Your task to perform on an android device: set the timer Image 0: 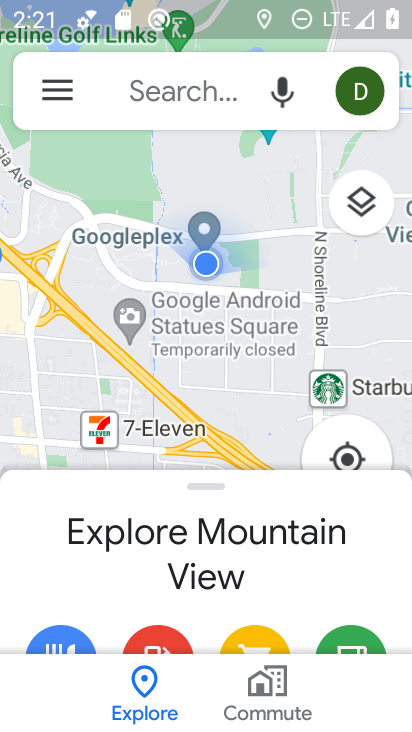
Step 0: press home button
Your task to perform on an android device: set the timer Image 1: 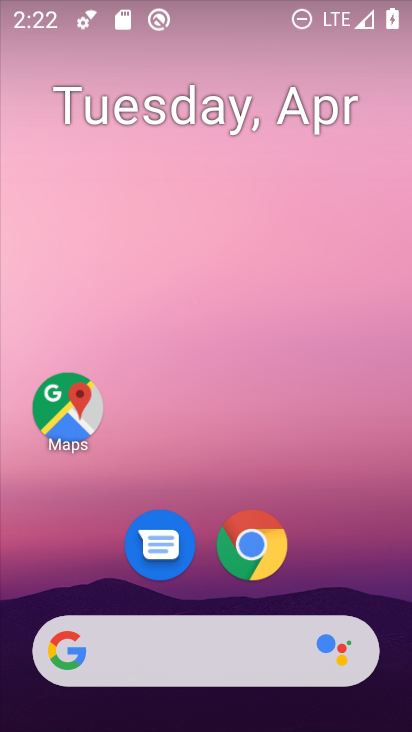
Step 1: drag from (384, 615) to (348, 214)
Your task to perform on an android device: set the timer Image 2: 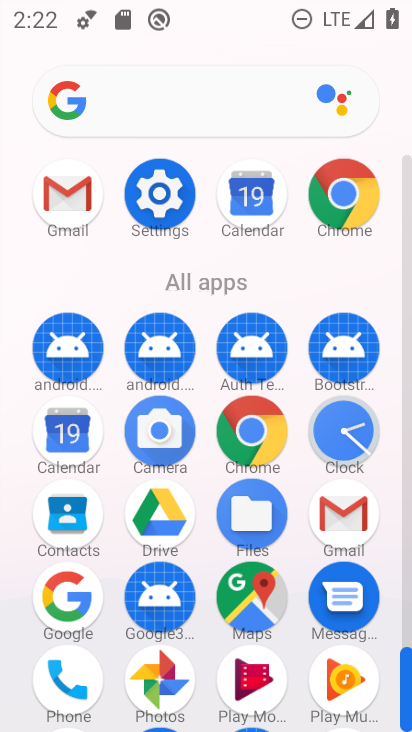
Step 2: click (349, 438)
Your task to perform on an android device: set the timer Image 3: 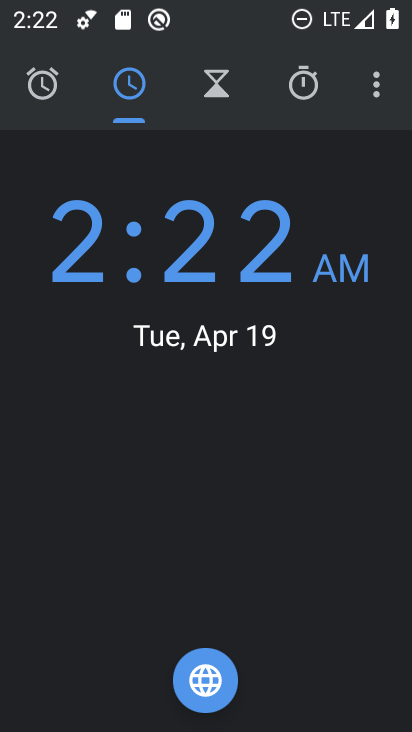
Step 3: click (233, 90)
Your task to perform on an android device: set the timer Image 4: 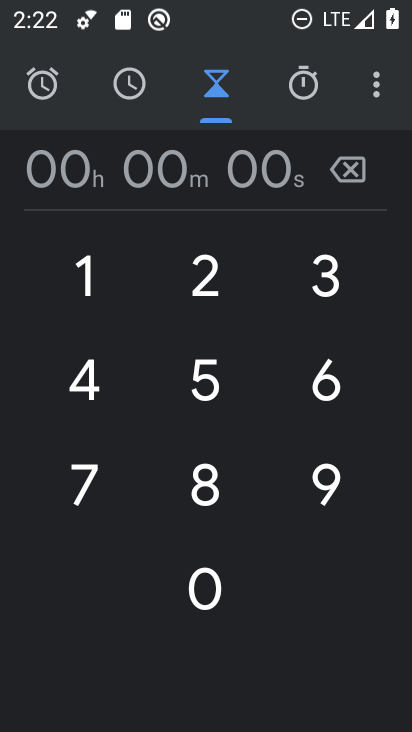
Step 4: type "10000"
Your task to perform on an android device: set the timer Image 5: 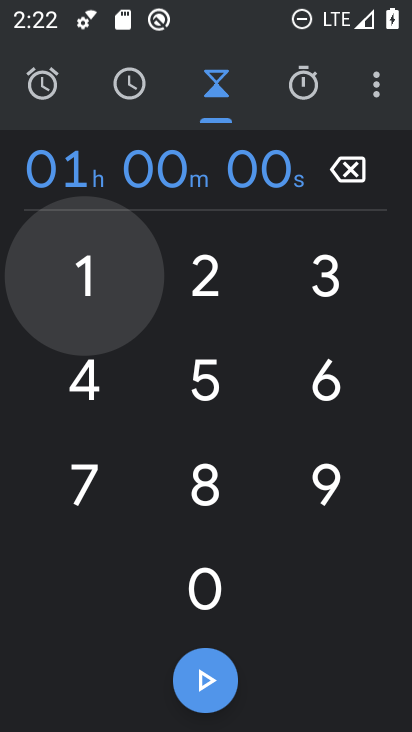
Step 5: click (224, 657)
Your task to perform on an android device: set the timer Image 6: 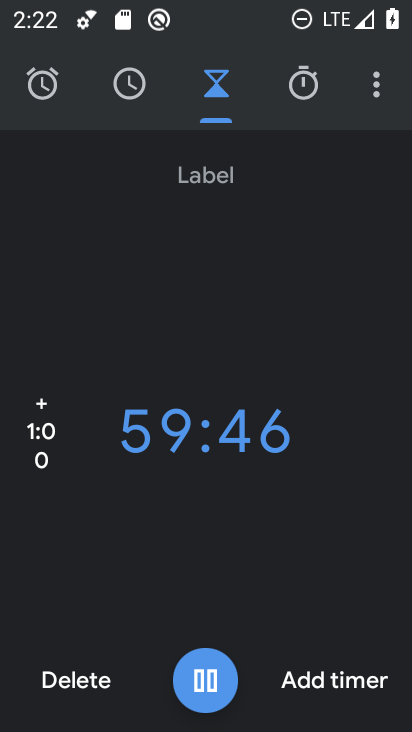
Step 6: task complete